Your task to perform on an android device: set the timer Image 0: 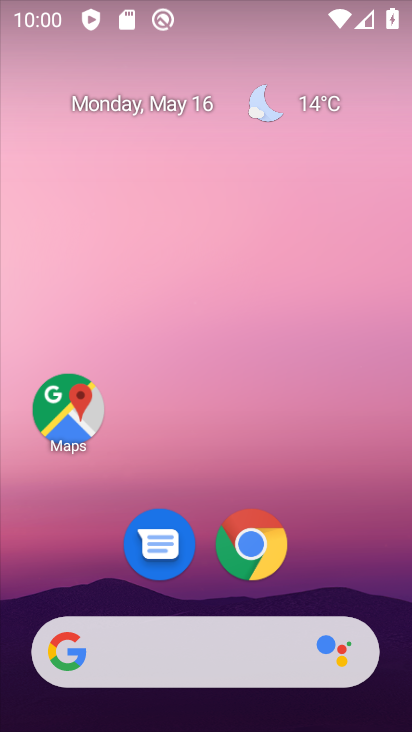
Step 0: drag from (305, 588) to (287, 129)
Your task to perform on an android device: set the timer Image 1: 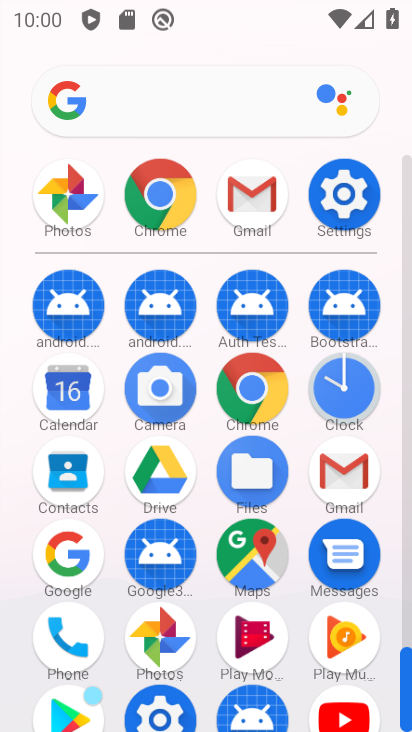
Step 1: click (355, 391)
Your task to perform on an android device: set the timer Image 2: 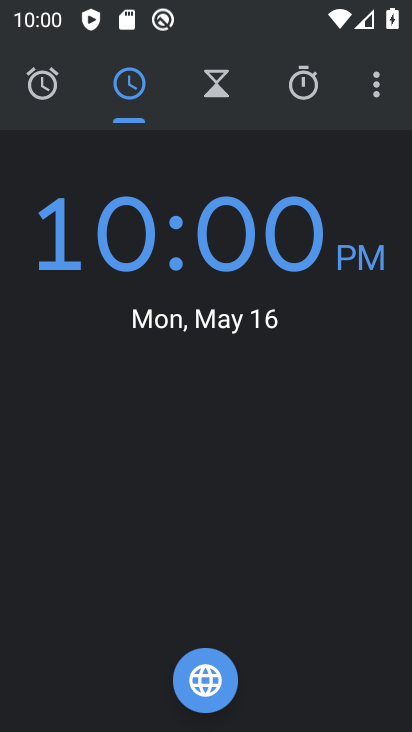
Step 2: click (209, 93)
Your task to perform on an android device: set the timer Image 3: 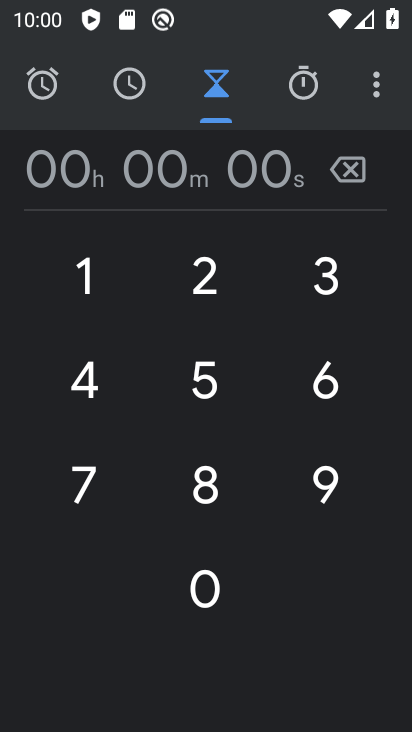
Step 3: click (208, 286)
Your task to perform on an android device: set the timer Image 4: 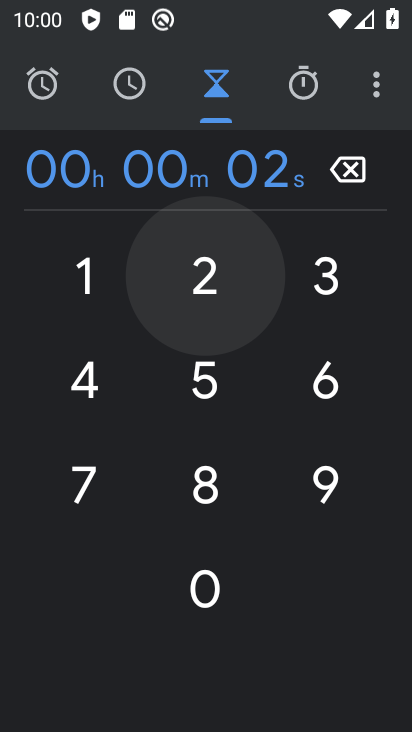
Step 4: click (213, 387)
Your task to perform on an android device: set the timer Image 5: 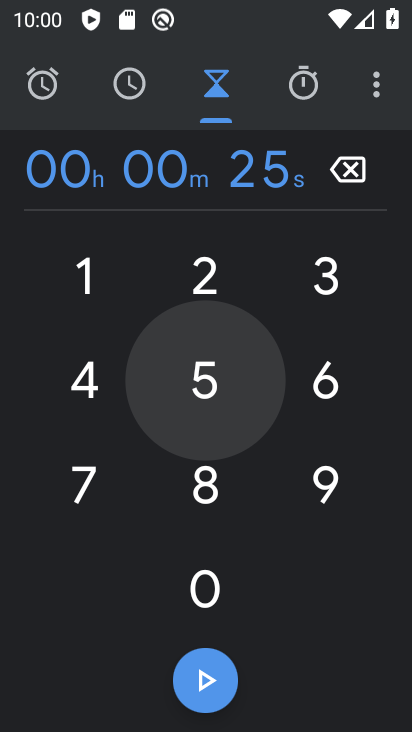
Step 5: click (316, 291)
Your task to perform on an android device: set the timer Image 6: 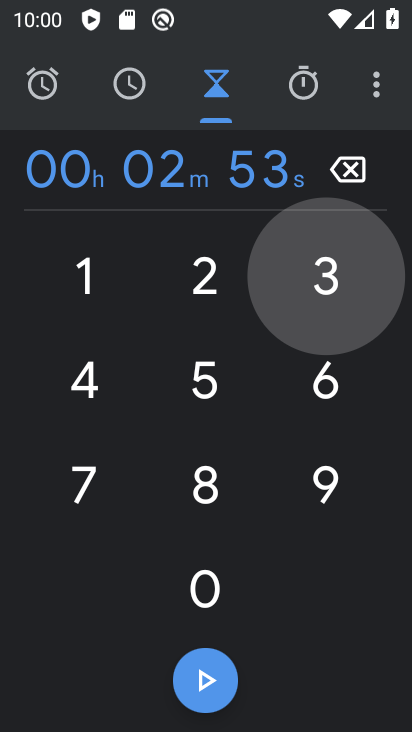
Step 6: click (321, 383)
Your task to perform on an android device: set the timer Image 7: 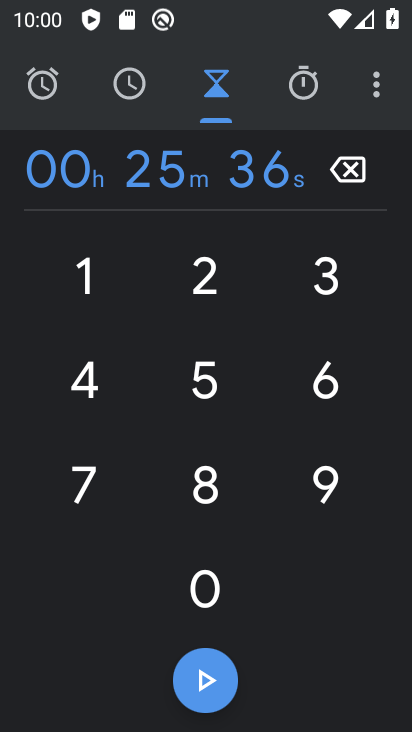
Step 7: click (191, 686)
Your task to perform on an android device: set the timer Image 8: 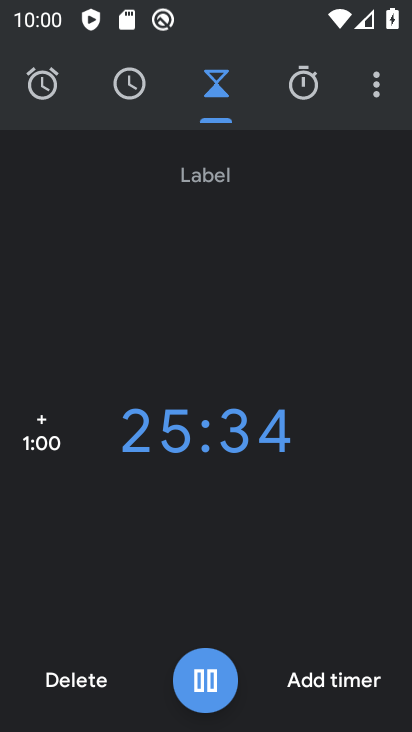
Step 8: task complete